Your task to perform on an android device: What's the weather going to be tomorrow? Image 0: 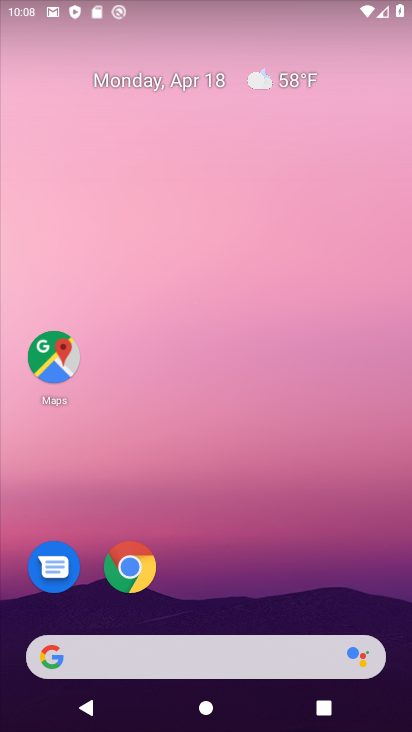
Step 0: click (261, 80)
Your task to perform on an android device: What's the weather going to be tomorrow? Image 1: 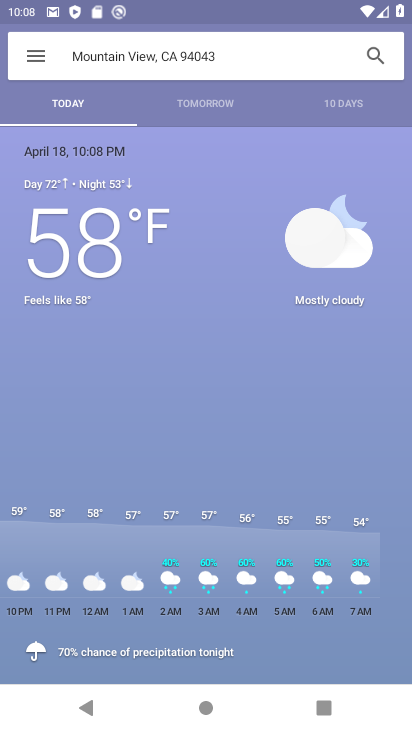
Step 1: click (192, 103)
Your task to perform on an android device: What's the weather going to be tomorrow? Image 2: 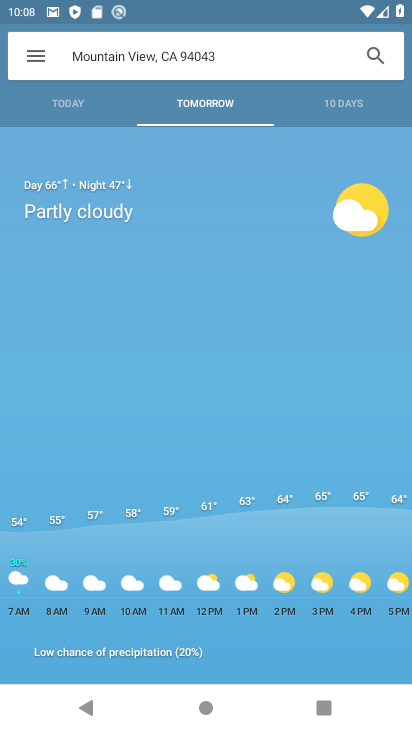
Step 2: task complete